Your task to perform on an android device: clear history in the chrome app Image 0: 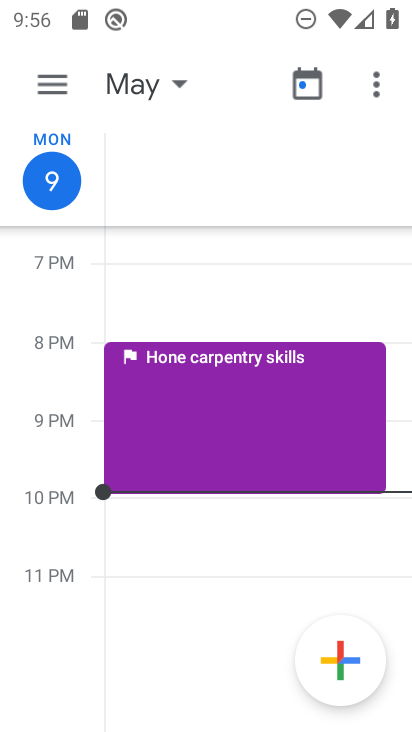
Step 0: press home button
Your task to perform on an android device: clear history in the chrome app Image 1: 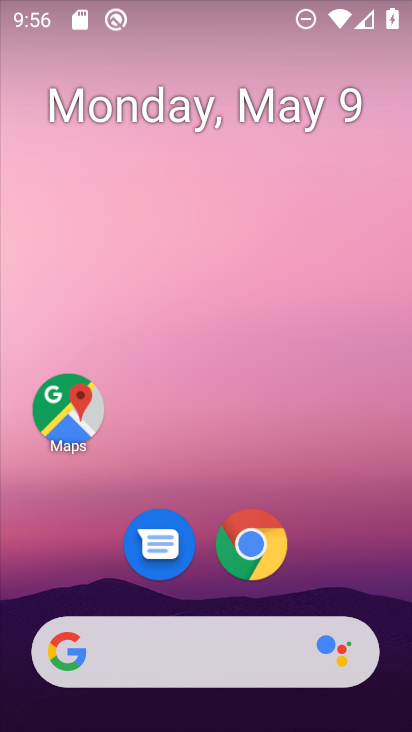
Step 1: click (247, 535)
Your task to perform on an android device: clear history in the chrome app Image 2: 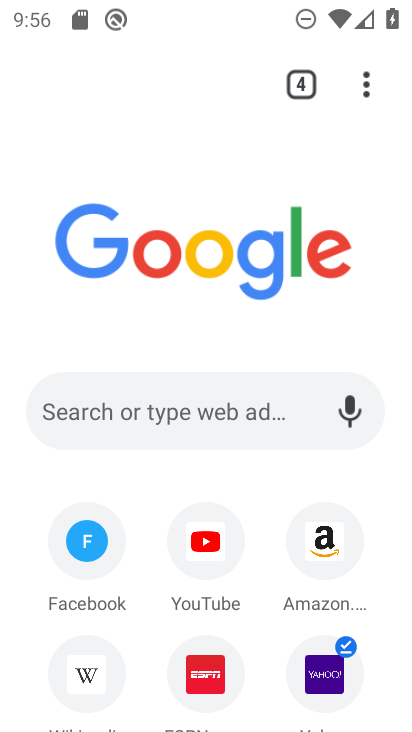
Step 2: click (367, 84)
Your task to perform on an android device: clear history in the chrome app Image 3: 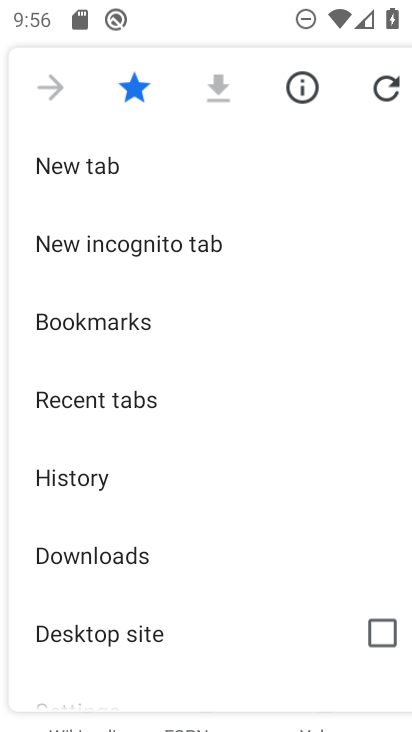
Step 3: click (84, 482)
Your task to perform on an android device: clear history in the chrome app Image 4: 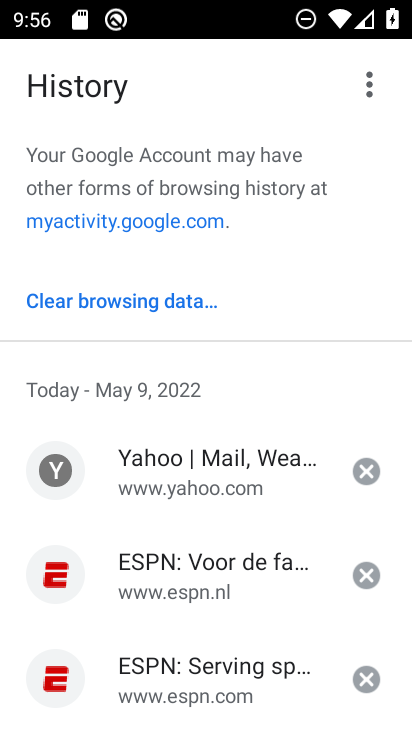
Step 4: click (128, 300)
Your task to perform on an android device: clear history in the chrome app Image 5: 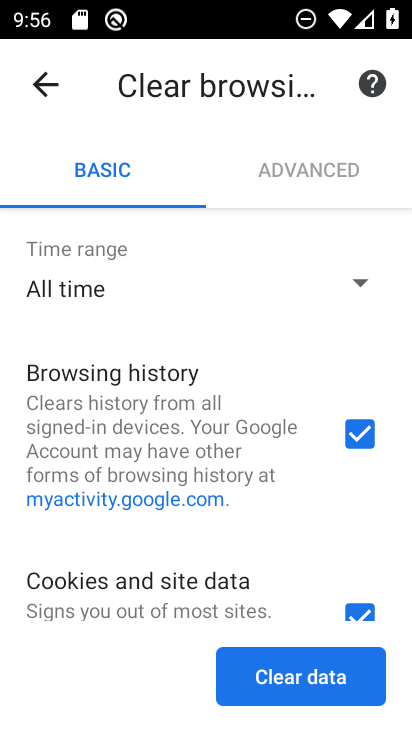
Step 5: click (288, 684)
Your task to perform on an android device: clear history in the chrome app Image 6: 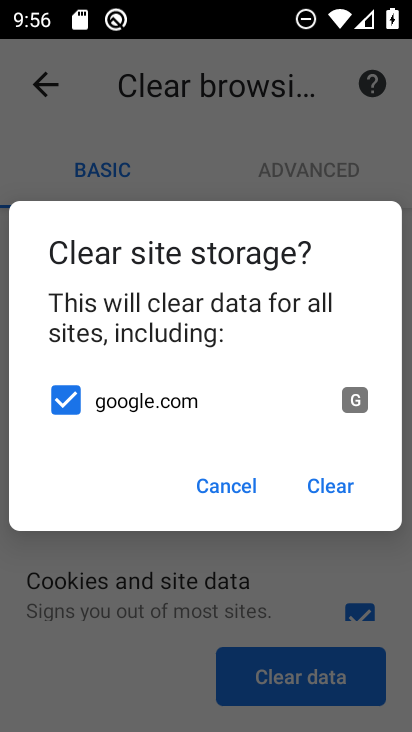
Step 6: click (328, 492)
Your task to perform on an android device: clear history in the chrome app Image 7: 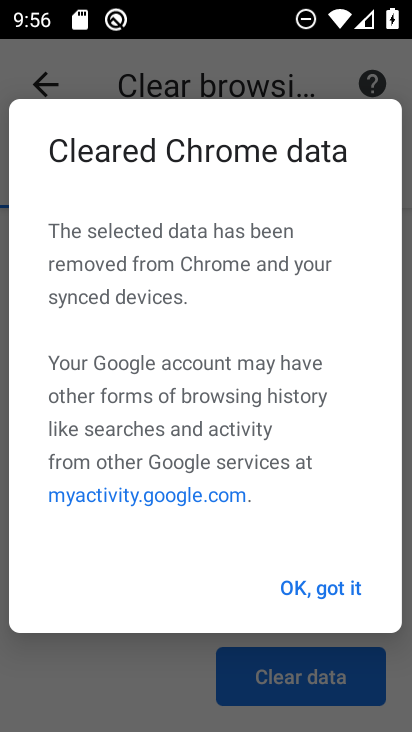
Step 7: click (318, 588)
Your task to perform on an android device: clear history in the chrome app Image 8: 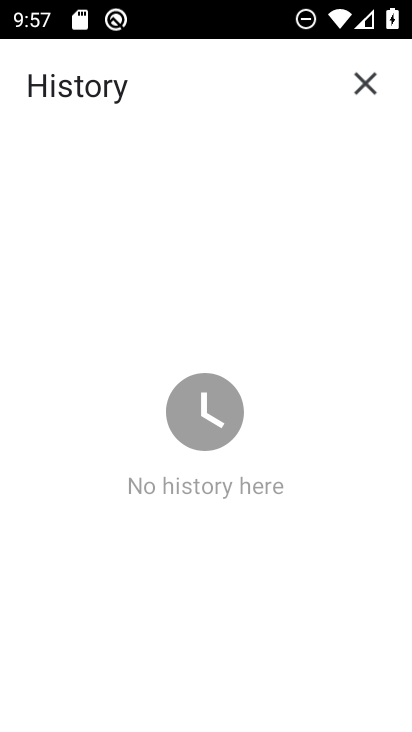
Step 8: task complete